Your task to perform on an android device: open device folders in google photos Image 0: 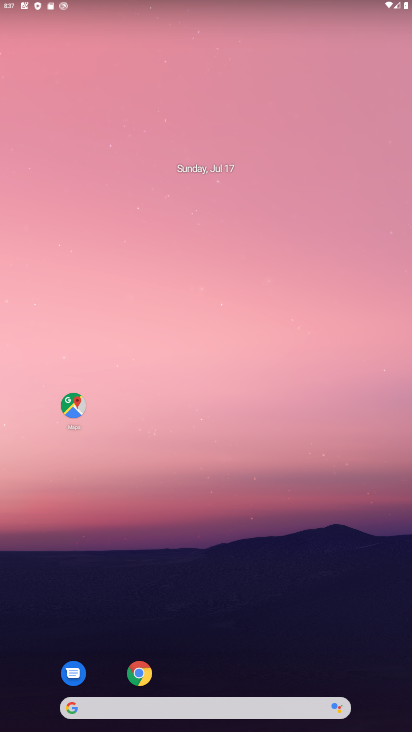
Step 0: drag from (238, 447) to (231, 94)
Your task to perform on an android device: open device folders in google photos Image 1: 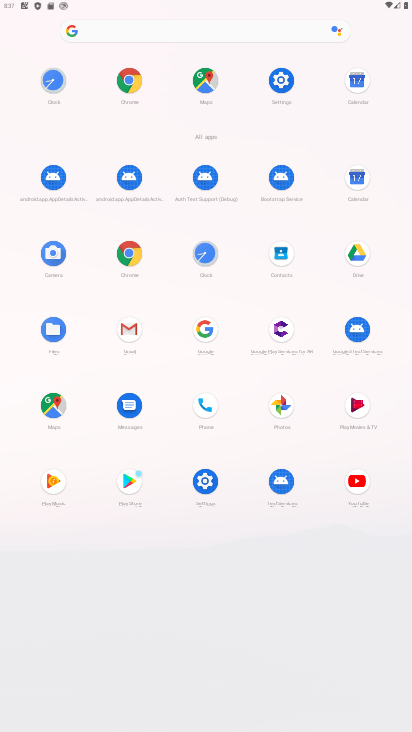
Step 1: drag from (261, 670) to (300, 173)
Your task to perform on an android device: open device folders in google photos Image 2: 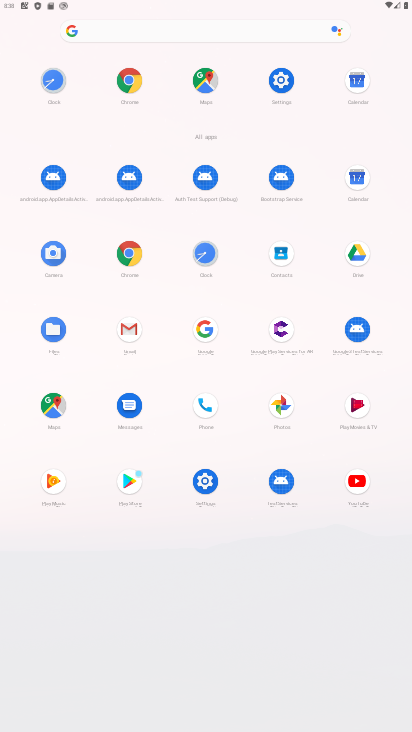
Step 2: click (281, 407)
Your task to perform on an android device: open device folders in google photos Image 3: 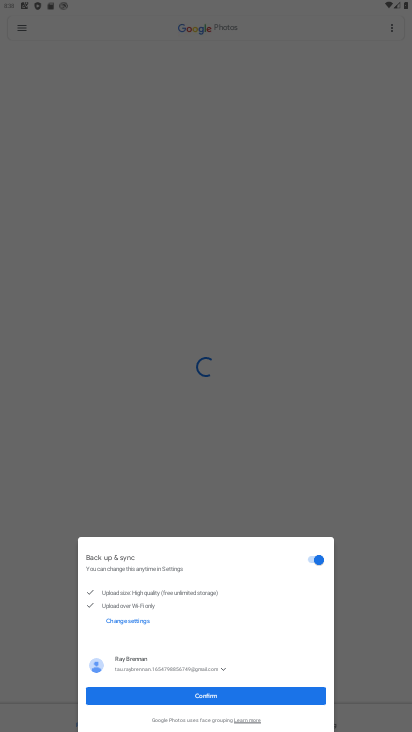
Step 3: click (223, 696)
Your task to perform on an android device: open device folders in google photos Image 4: 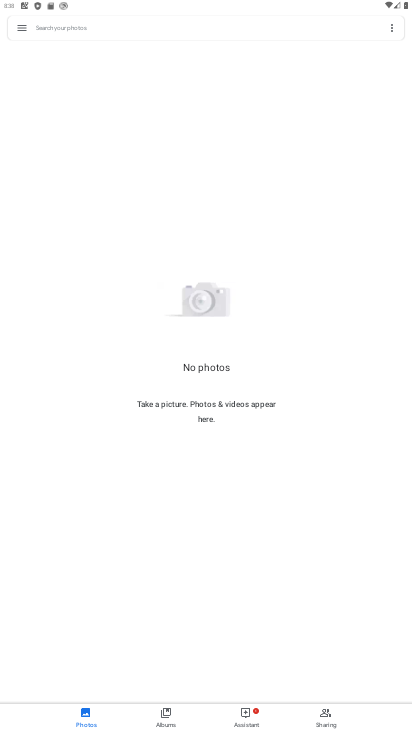
Step 4: click (17, 22)
Your task to perform on an android device: open device folders in google photos Image 5: 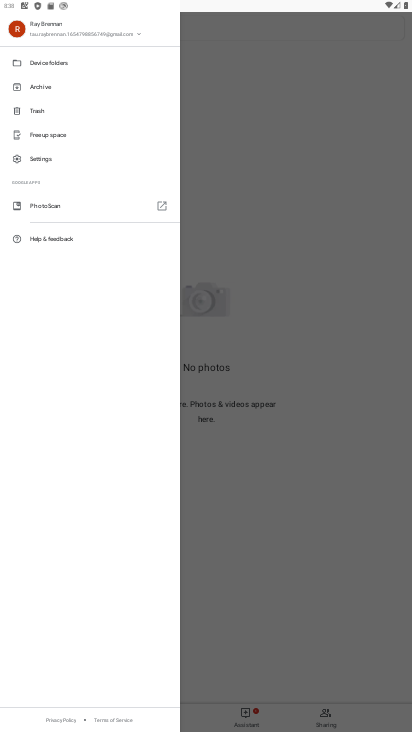
Step 5: click (58, 61)
Your task to perform on an android device: open device folders in google photos Image 6: 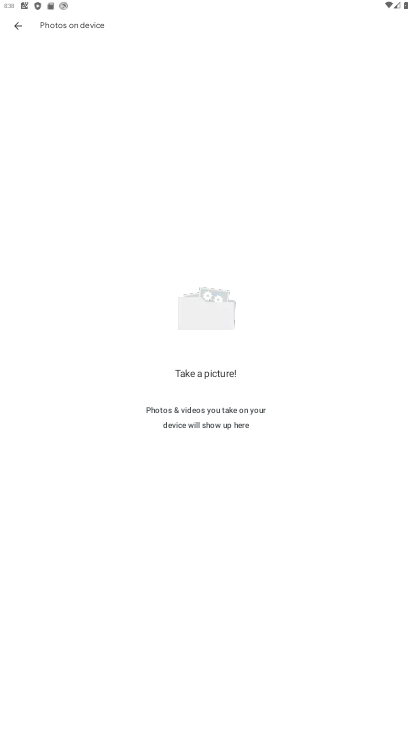
Step 6: task complete